Your task to perform on an android device: What's on my calendar today? Image 0: 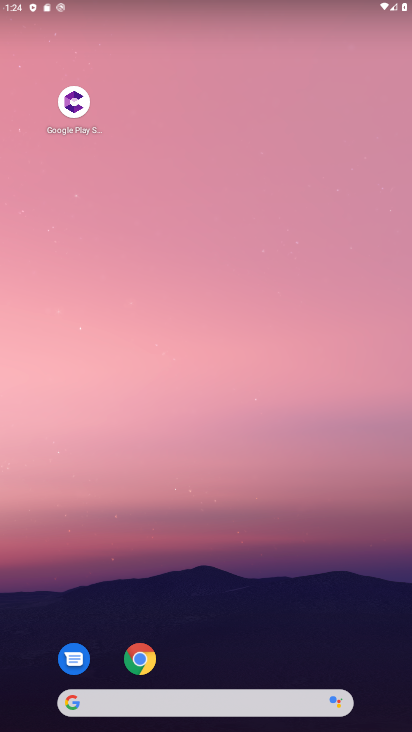
Step 0: drag from (249, 664) to (248, 8)
Your task to perform on an android device: What's on my calendar today? Image 1: 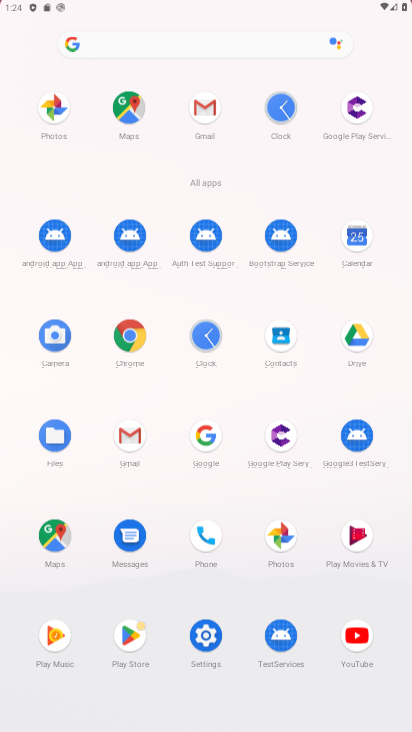
Step 1: click (342, 226)
Your task to perform on an android device: What's on my calendar today? Image 2: 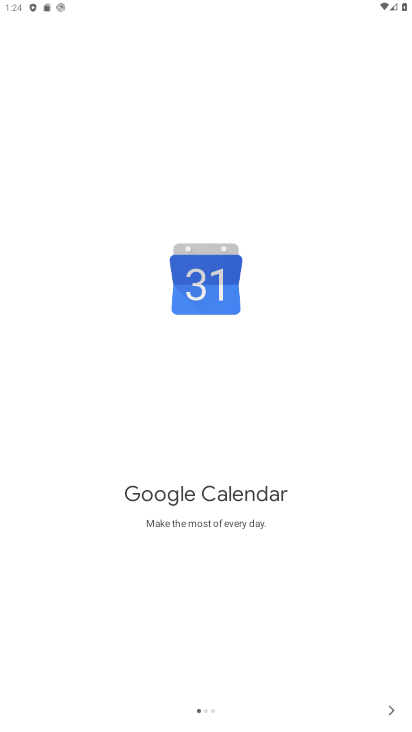
Step 2: click (387, 719)
Your task to perform on an android device: What's on my calendar today? Image 3: 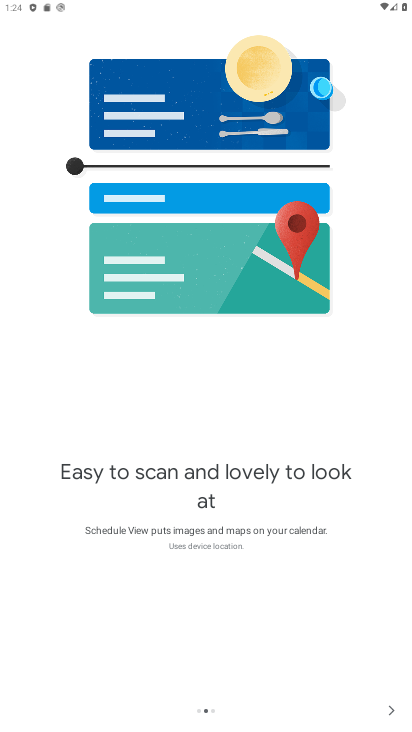
Step 3: click (387, 719)
Your task to perform on an android device: What's on my calendar today? Image 4: 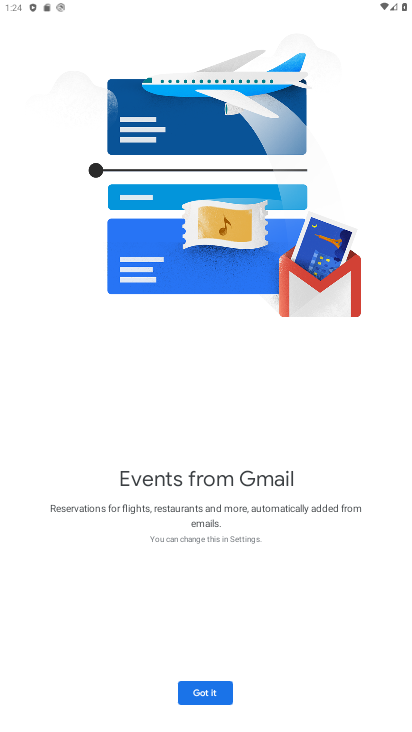
Step 4: click (203, 692)
Your task to perform on an android device: What's on my calendar today? Image 5: 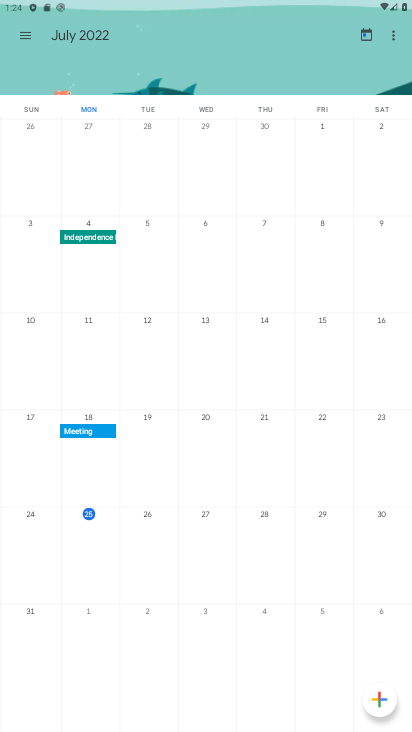
Step 5: click (25, 35)
Your task to perform on an android device: What's on my calendar today? Image 6: 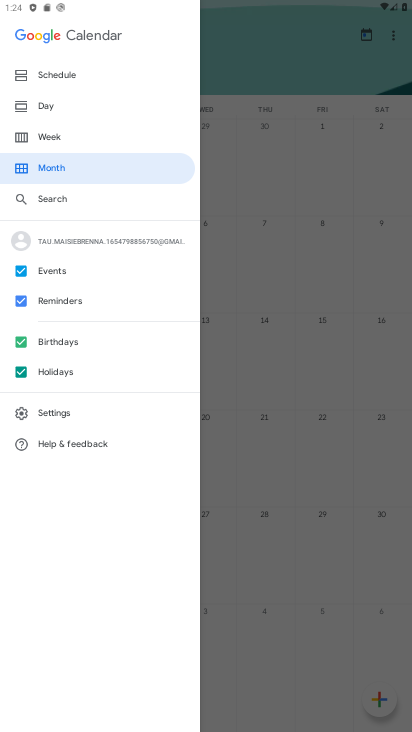
Step 6: click (37, 108)
Your task to perform on an android device: What's on my calendar today? Image 7: 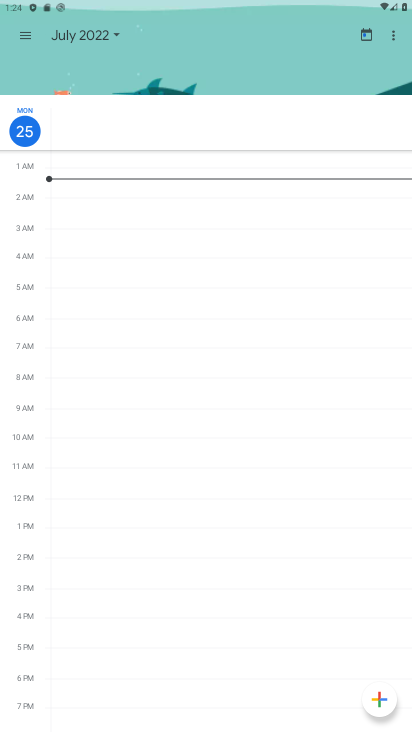
Step 7: task complete